Your task to perform on an android device: clear all cookies in the chrome app Image 0: 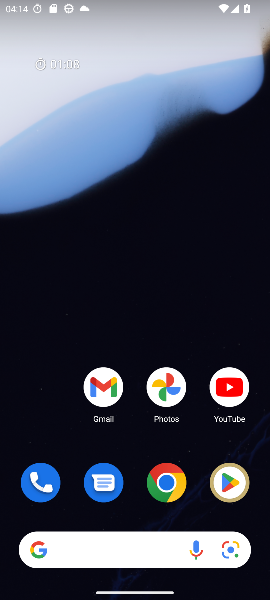
Step 0: drag from (135, 470) to (136, 88)
Your task to perform on an android device: clear all cookies in the chrome app Image 1: 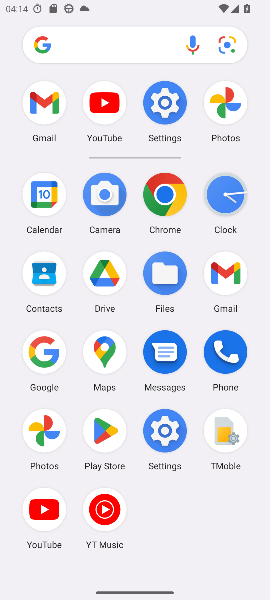
Step 1: click (162, 184)
Your task to perform on an android device: clear all cookies in the chrome app Image 2: 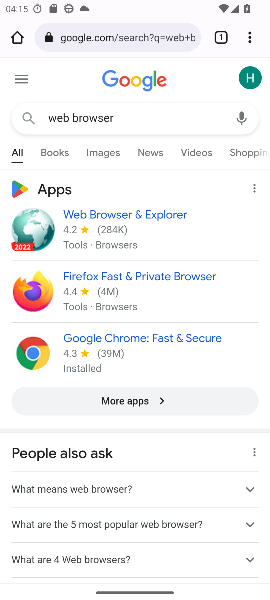
Step 2: drag from (252, 35) to (150, 465)
Your task to perform on an android device: clear all cookies in the chrome app Image 3: 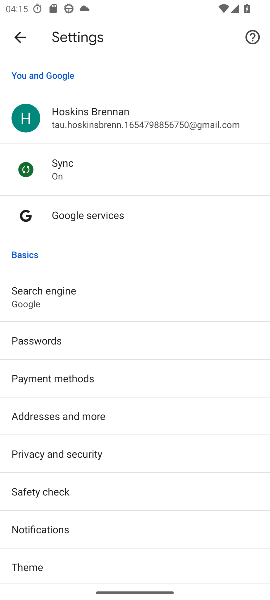
Step 3: drag from (152, 521) to (186, 235)
Your task to perform on an android device: clear all cookies in the chrome app Image 4: 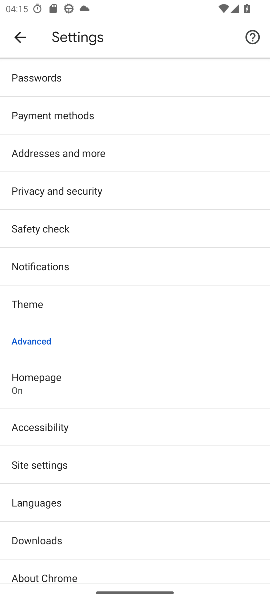
Step 4: click (81, 188)
Your task to perform on an android device: clear all cookies in the chrome app Image 5: 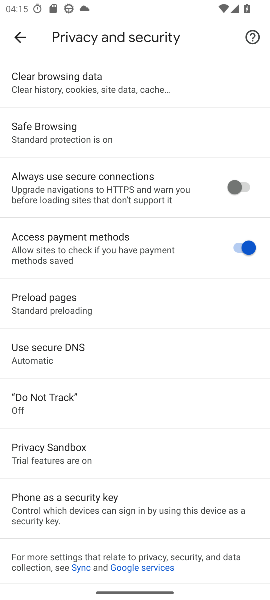
Step 5: click (86, 77)
Your task to perform on an android device: clear all cookies in the chrome app Image 6: 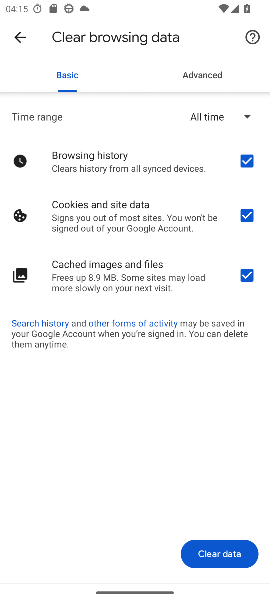
Step 6: click (211, 551)
Your task to perform on an android device: clear all cookies in the chrome app Image 7: 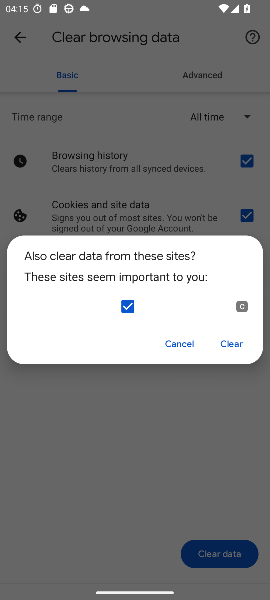
Step 7: click (237, 343)
Your task to perform on an android device: clear all cookies in the chrome app Image 8: 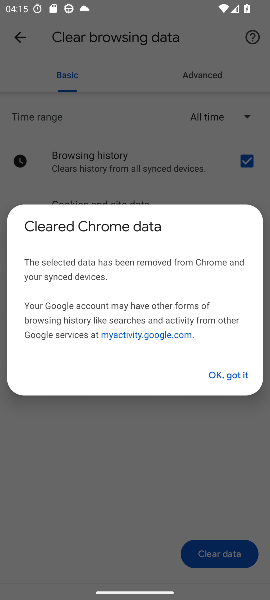
Step 8: click (227, 363)
Your task to perform on an android device: clear all cookies in the chrome app Image 9: 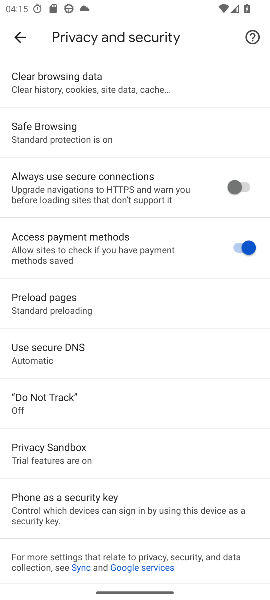
Step 9: task complete